Your task to perform on an android device: empty trash in google photos Image 0: 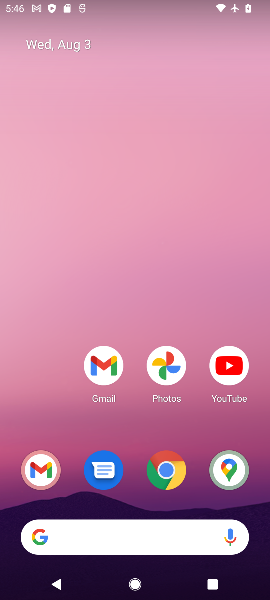
Step 0: drag from (46, 434) to (148, 123)
Your task to perform on an android device: empty trash in google photos Image 1: 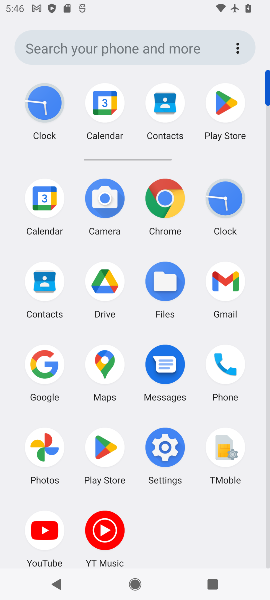
Step 1: click (36, 460)
Your task to perform on an android device: empty trash in google photos Image 2: 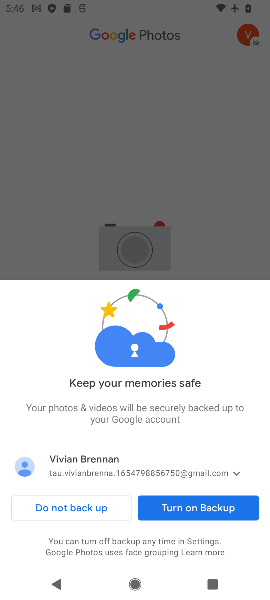
Step 2: click (167, 506)
Your task to perform on an android device: empty trash in google photos Image 3: 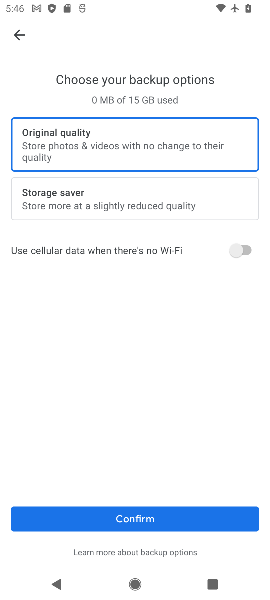
Step 3: click (181, 524)
Your task to perform on an android device: empty trash in google photos Image 4: 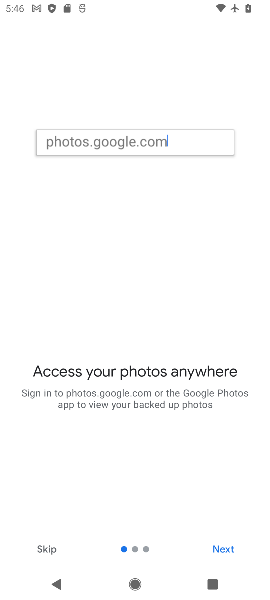
Step 4: click (56, 548)
Your task to perform on an android device: empty trash in google photos Image 5: 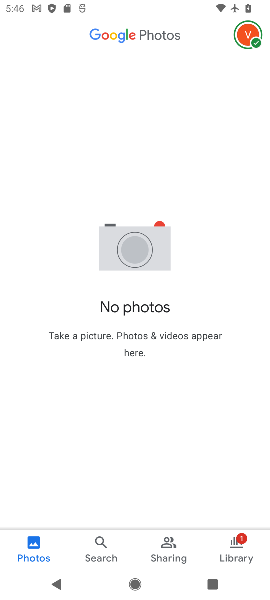
Step 5: click (246, 37)
Your task to perform on an android device: empty trash in google photos Image 6: 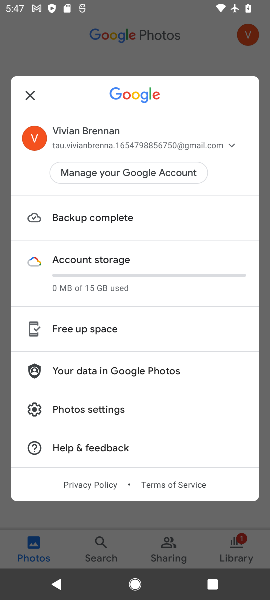
Step 6: click (158, 54)
Your task to perform on an android device: empty trash in google photos Image 7: 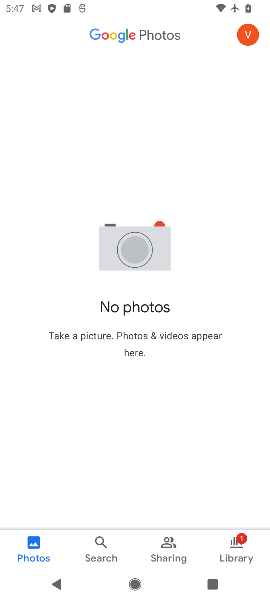
Step 7: click (234, 548)
Your task to perform on an android device: empty trash in google photos Image 8: 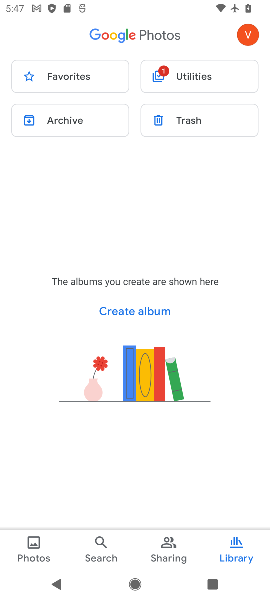
Step 8: click (196, 118)
Your task to perform on an android device: empty trash in google photos Image 9: 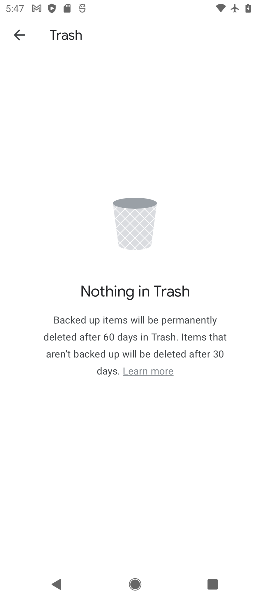
Step 9: task complete